Your task to perform on an android device: Open Google Chrome Image 0: 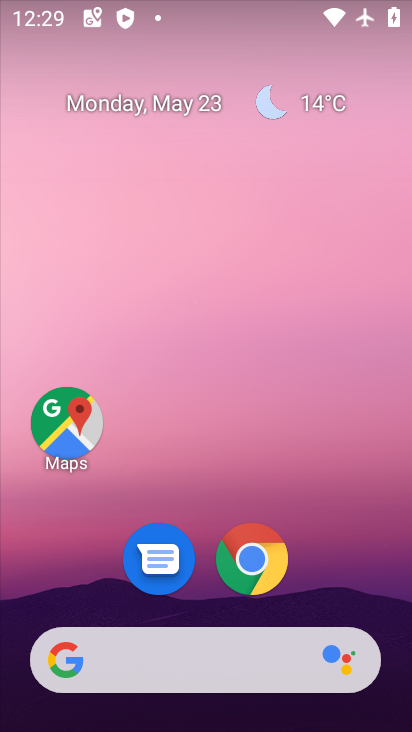
Step 0: click (253, 563)
Your task to perform on an android device: Open Google Chrome Image 1: 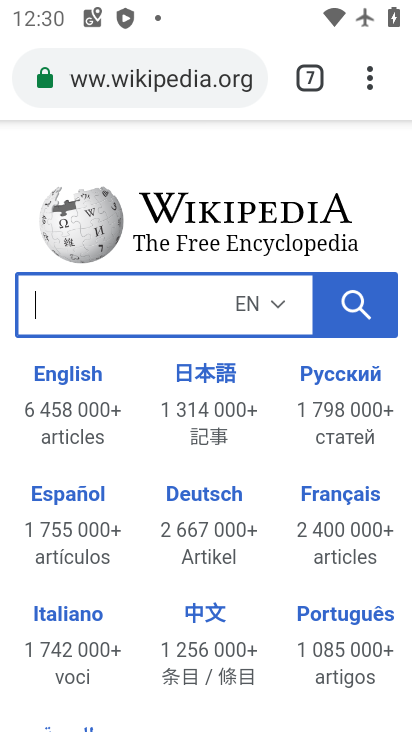
Step 1: task complete